Your task to perform on an android device: search for starred emails in the gmail app Image 0: 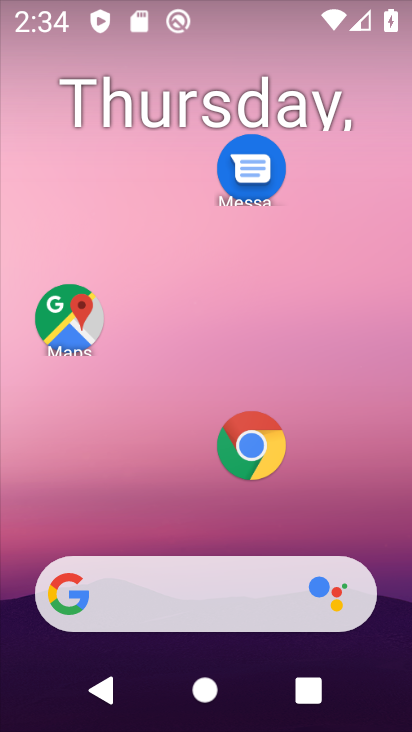
Step 0: drag from (148, 539) to (198, 0)
Your task to perform on an android device: search for starred emails in the gmail app Image 1: 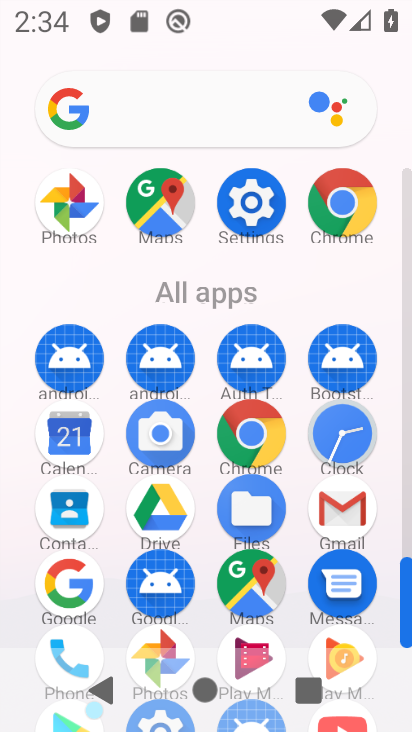
Step 1: click (349, 500)
Your task to perform on an android device: search for starred emails in the gmail app Image 2: 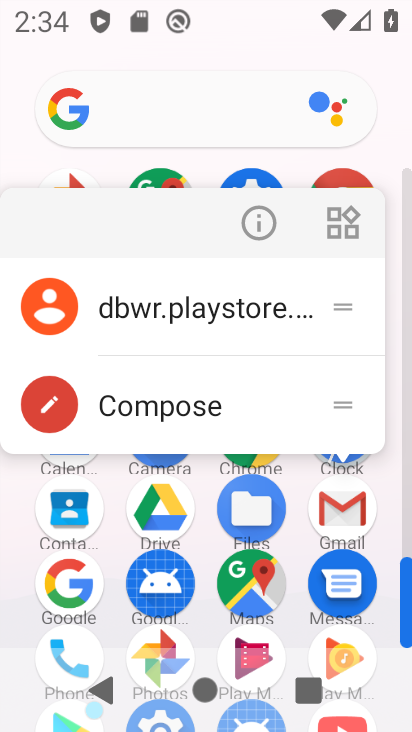
Step 2: click (349, 500)
Your task to perform on an android device: search for starred emails in the gmail app Image 3: 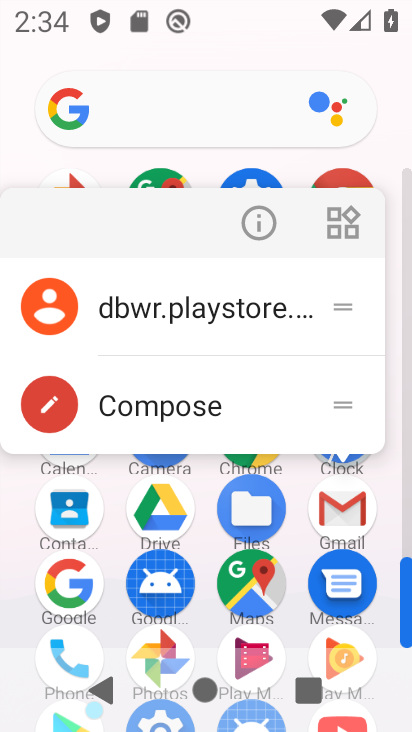
Step 3: click (349, 500)
Your task to perform on an android device: search for starred emails in the gmail app Image 4: 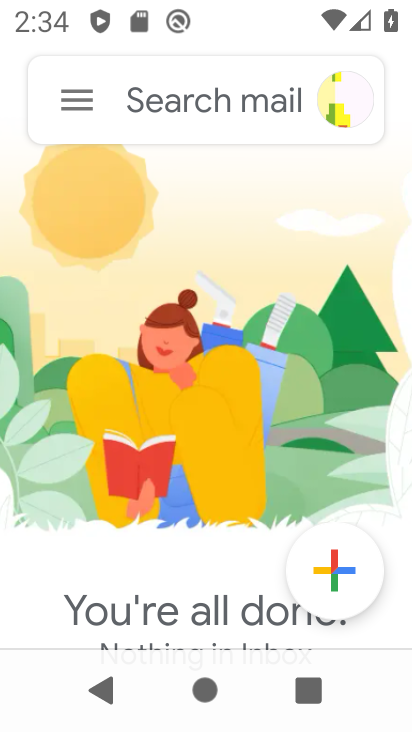
Step 4: click (77, 100)
Your task to perform on an android device: search for starred emails in the gmail app Image 5: 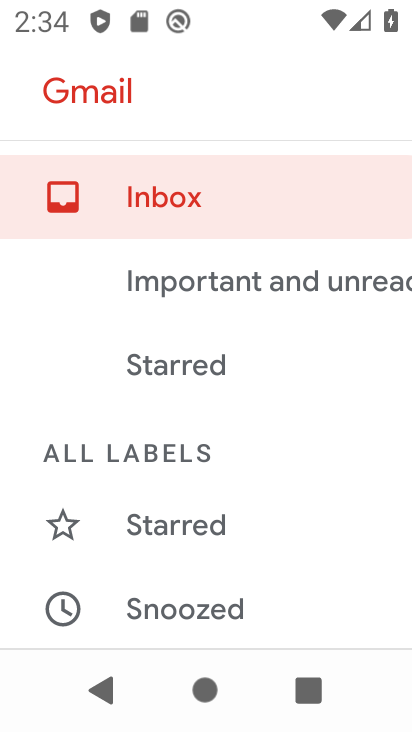
Step 5: click (189, 536)
Your task to perform on an android device: search for starred emails in the gmail app Image 6: 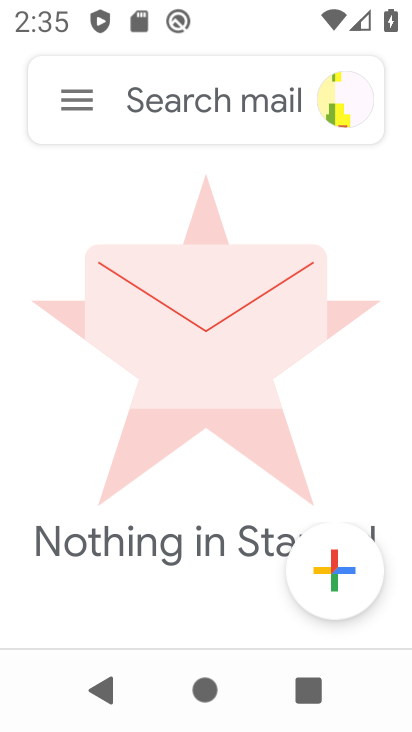
Step 6: click (215, 119)
Your task to perform on an android device: search for starred emails in the gmail app Image 7: 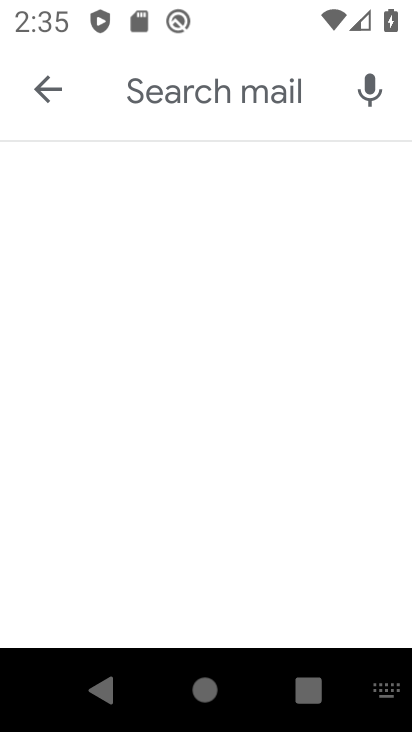
Step 7: type "starred"
Your task to perform on an android device: search for starred emails in the gmail app Image 8: 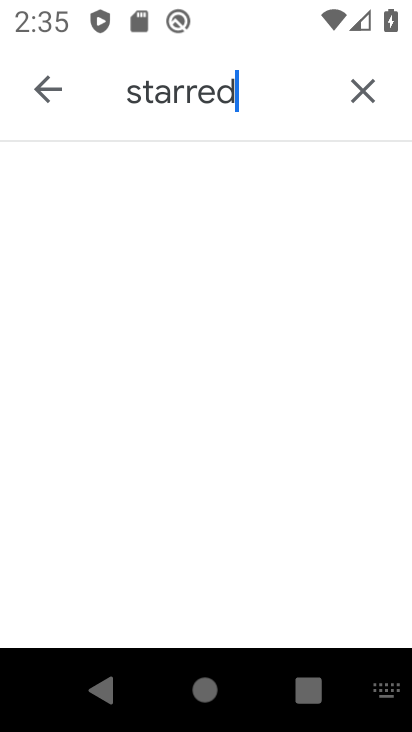
Step 8: type ""
Your task to perform on an android device: search for starred emails in the gmail app Image 9: 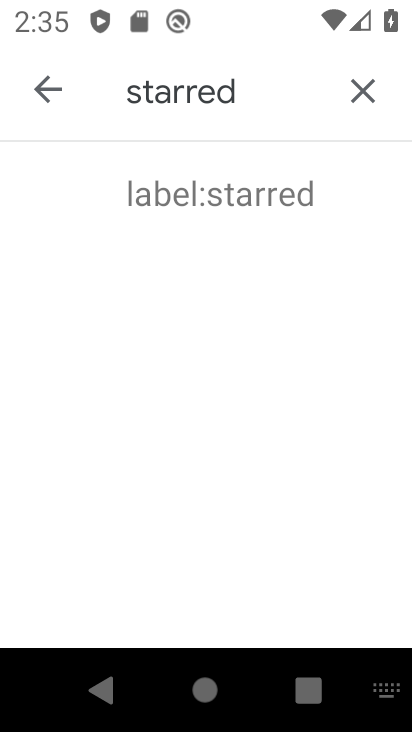
Step 9: click (297, 207)
Your task to perform on an android device: search for starred emails in the gmail app Image 10: 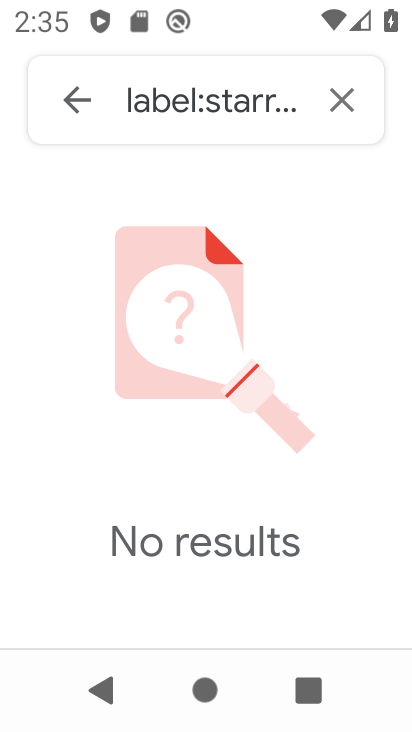
Step 10: task complete